Your task to perform on an android device: Open display settings Image 0: 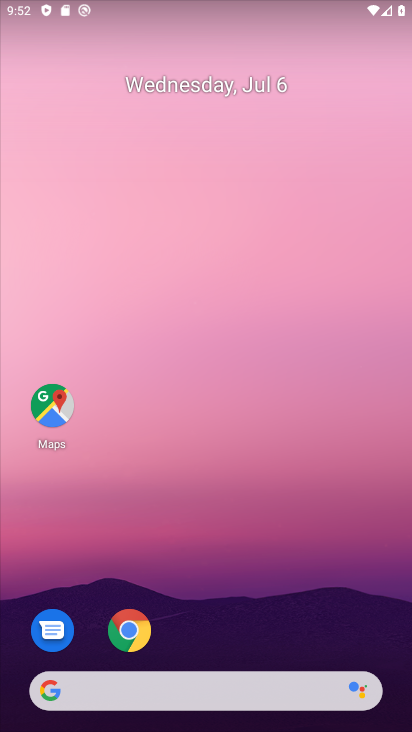
Step 0: drag from (346, 662) to (362, 62)
Your task to perform on an android device: Open display settings Image 1: 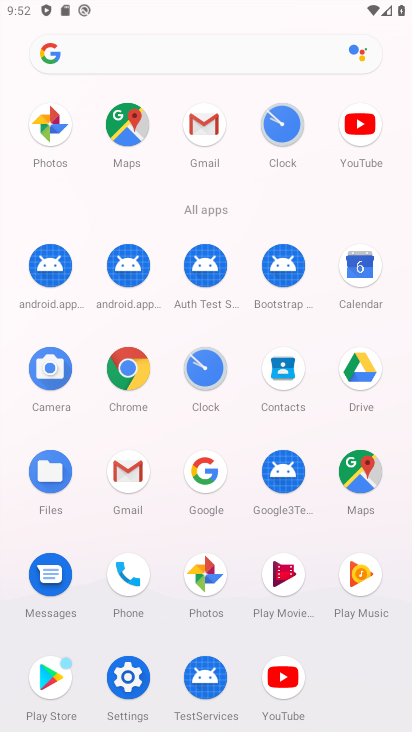
Step 1: click (116, 673)
Your task to perform on an android device: Open display settings Image 2: 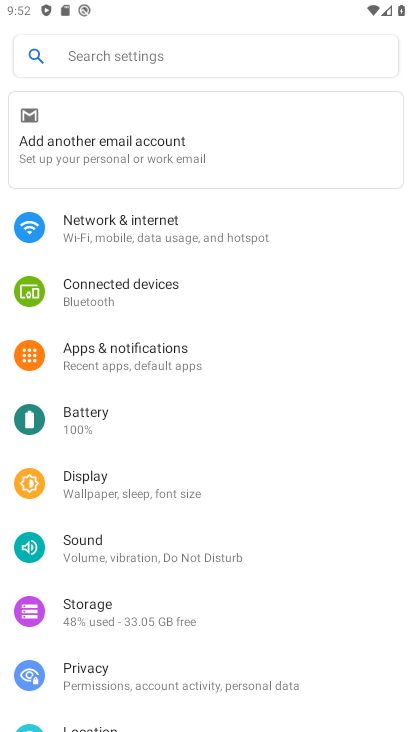
Step 2: click (196, 477)
Your task to perform on an android device: Open display settings Image 3: 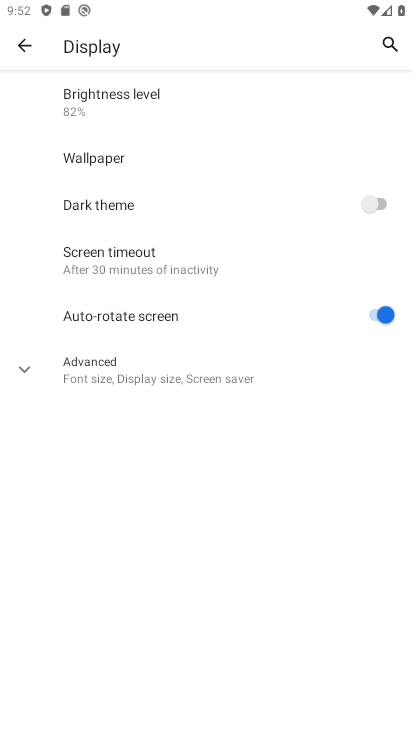
Step 3: task complete